Your task to perform on an android device: turn on airplane mode Image 0: 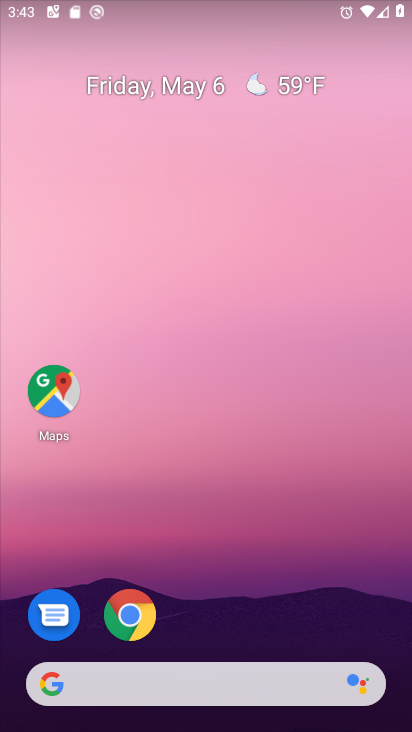
Step 0: drag from (359, 404) to (344, 14)
Your task to perform on an android device: turn on airplane mode Image 1: 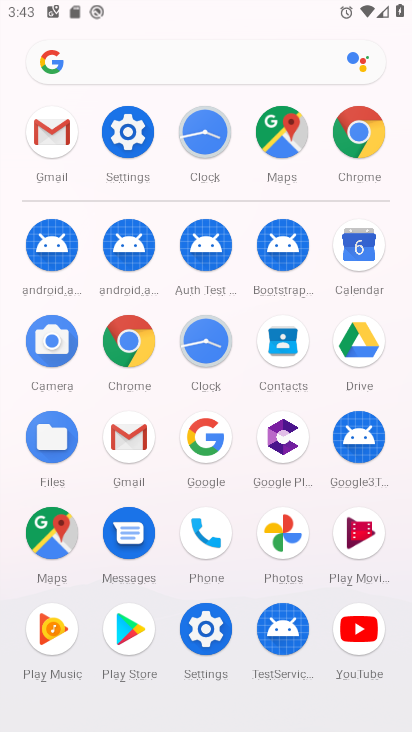
Step 1: click (125, 137)
Your task to perform on an android device: turn on airplane mode Image 2: 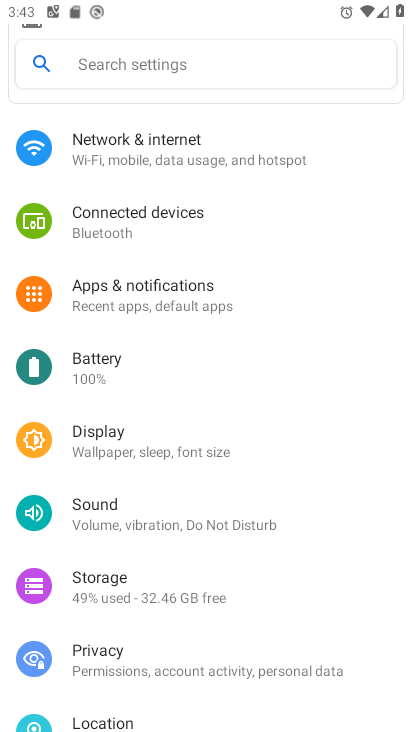
Step 2: click (128, 146)
Your task to perform on an android device: turn on airplane mode Image 3: 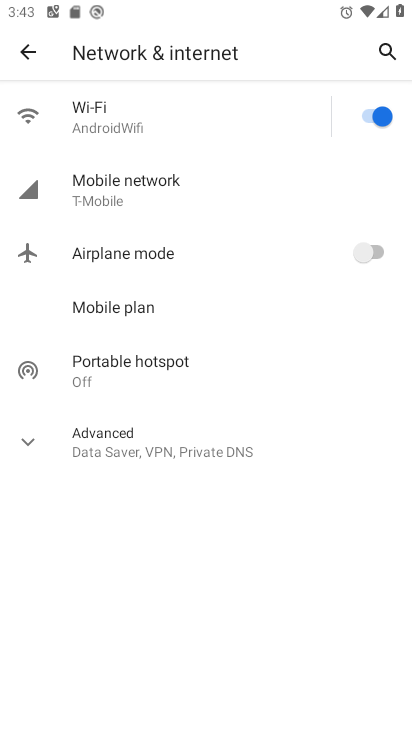
Step 3: click (368, 252)
Your task to perform on an android device: turn on airplane mode Image 4: 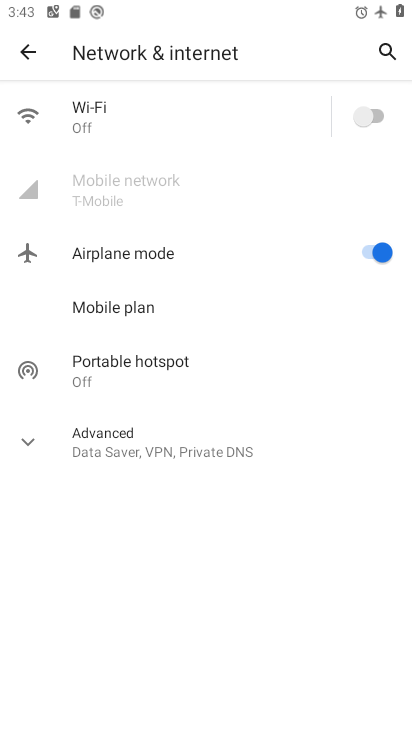
Step 4: task complete